Your task to perform on an android device: check out phone information Image 0: 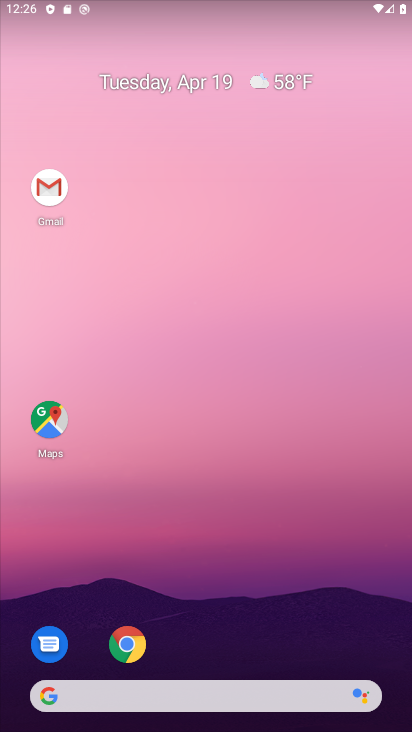
Step 0: drag from (199, 664) to (264, 258)
Your task to perform on an android device: check out phone information Image 1: 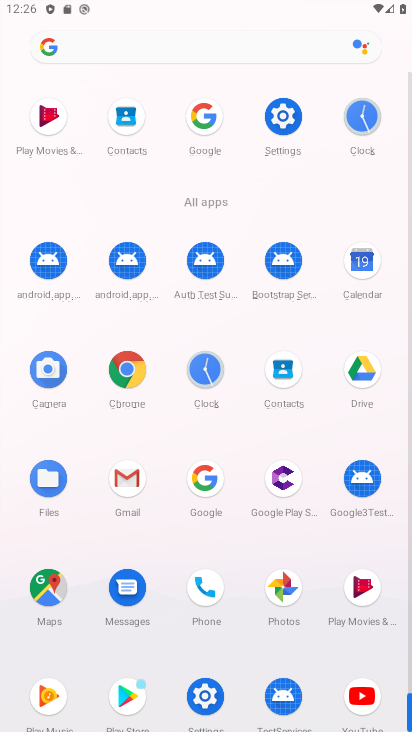
Step 1: click (283, 118)
Your task to perform on an android device: check out phone information Image 2: 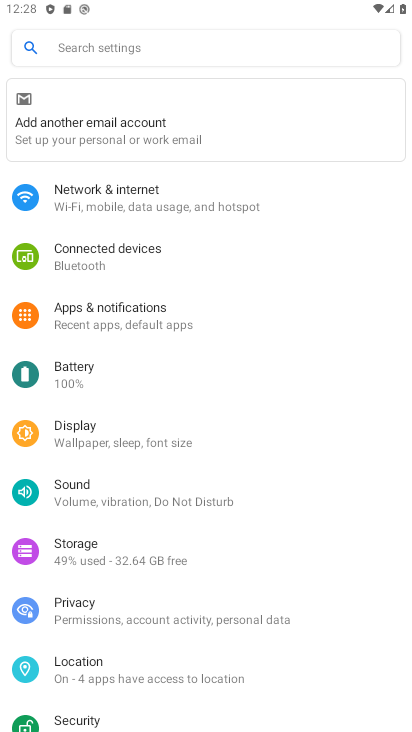
Step 2: drag from (287, 665) to (256, 109)
Your task to perform on an android device: check out phone information Image 3: 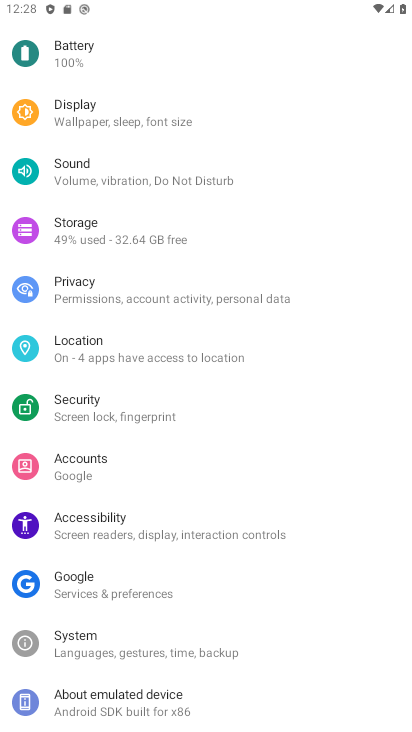
Step 3: click (205, 704)
Your task to perform on an android device: check out phone information Image 4: 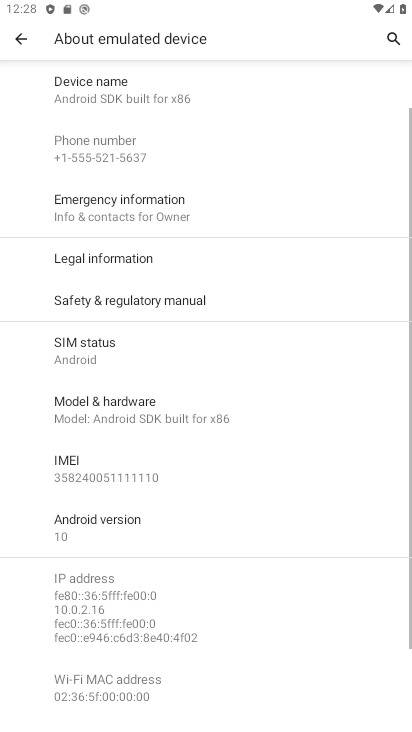
Step 4: click (237, 414)
Your task to perform on an android device: check out phone information Image 5: 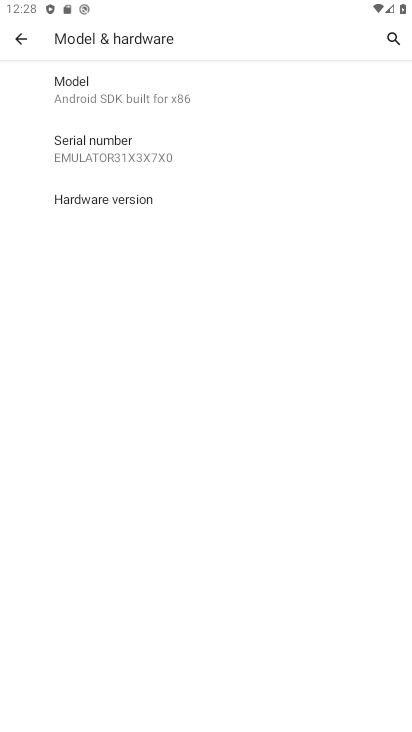
Step 5: task complete